Your task to perform on an android device: Find the nearest electronics store that's open tomorrow Image 0: 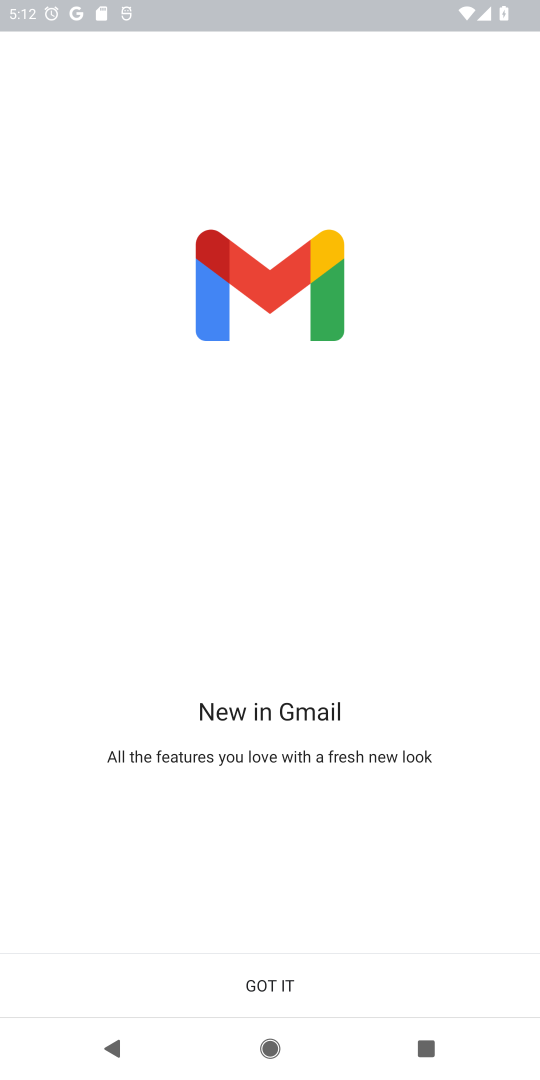
Step 0: click (265, 984)
Your task to perform on an android device: Find the nearest electronics store that's open tomorrow Image 1: 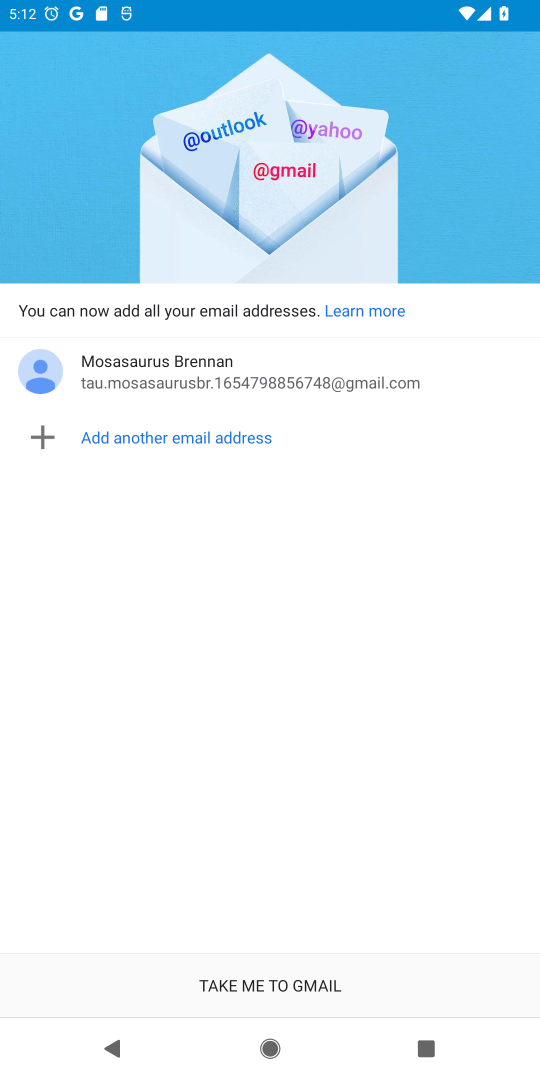
Step 1: click (248, 994)
Your task to perform on an android device: Find the nearest electronics store that's open tomorrow Image 2: 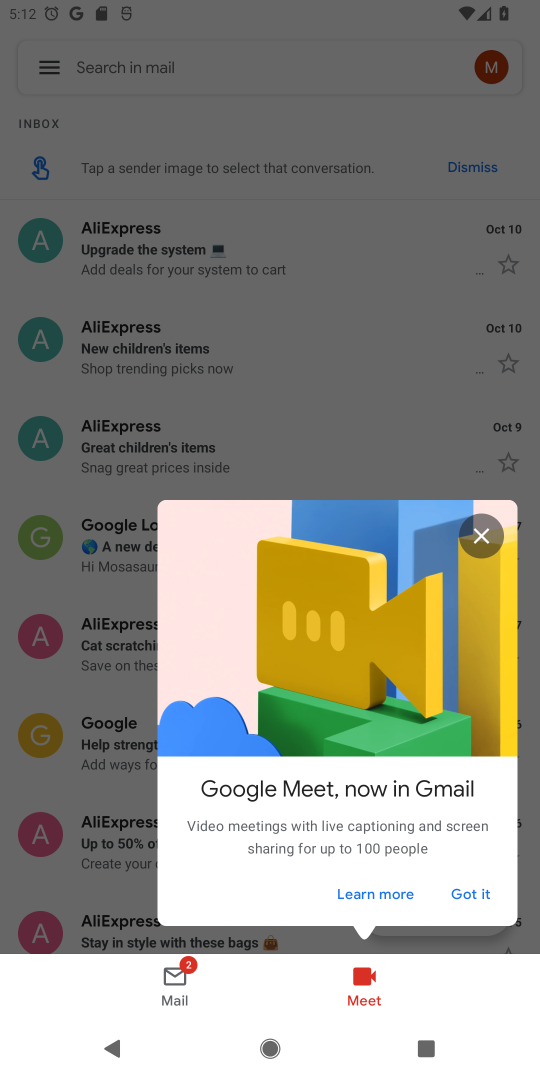
Step 2: press home button
Your task to perform on an android device: Find the nearest electronics store that's open tomorrow Image 3: 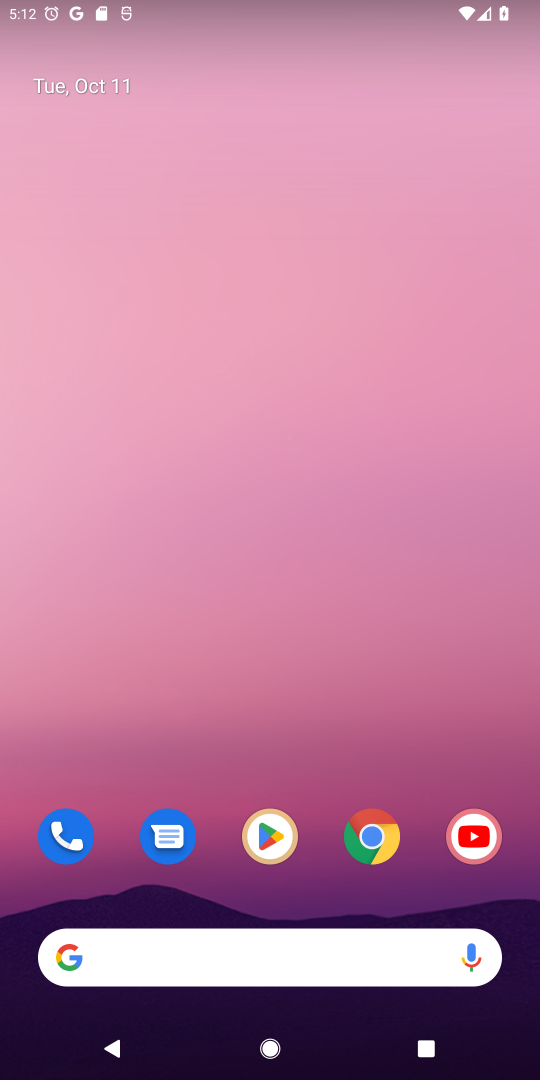
Step 3: click (310, 971)
Your task to perform on an android device: Find the nearest electronics store that's open tomorrow Image 4: 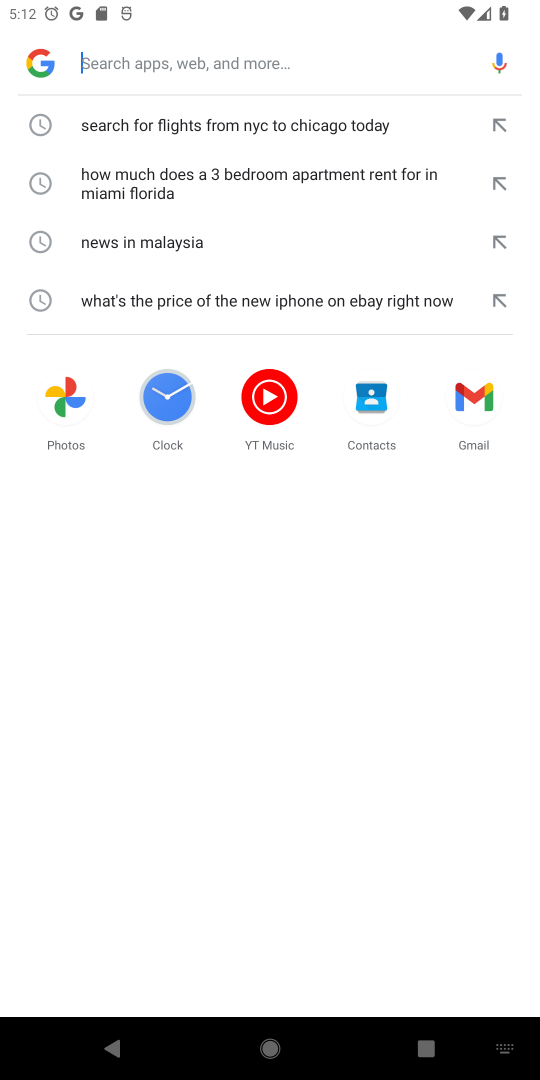
Step 4: type "Find the nearest electronics store that's open tomorrow"
Your task to perform on an android device: Find the nearest electronics store that's open tomorrow Image 5: 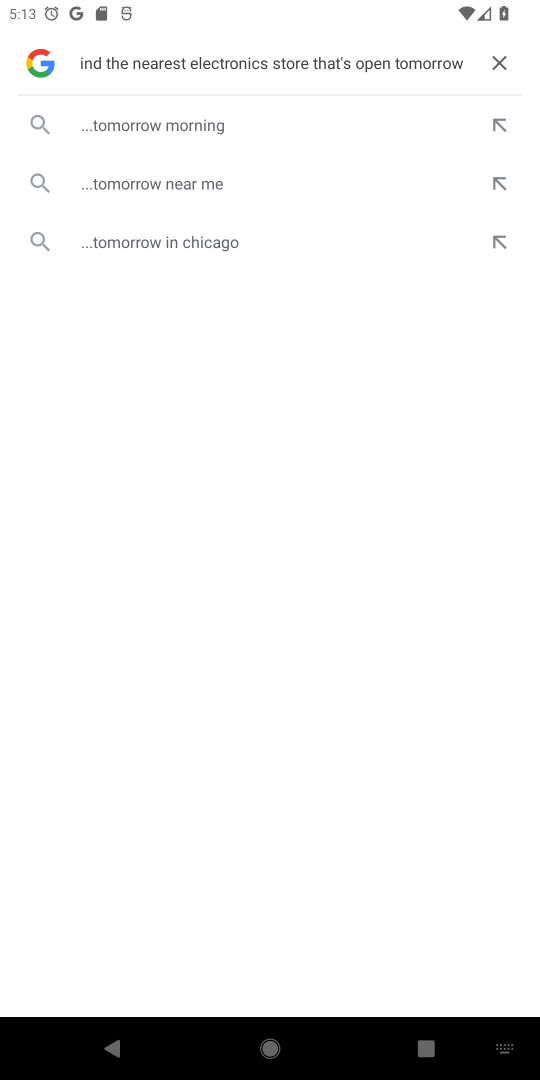
Step 5: click (347, 132)
Your task to perform on an android device: Find the nearest electronics store that's open tomorrow Image 6: 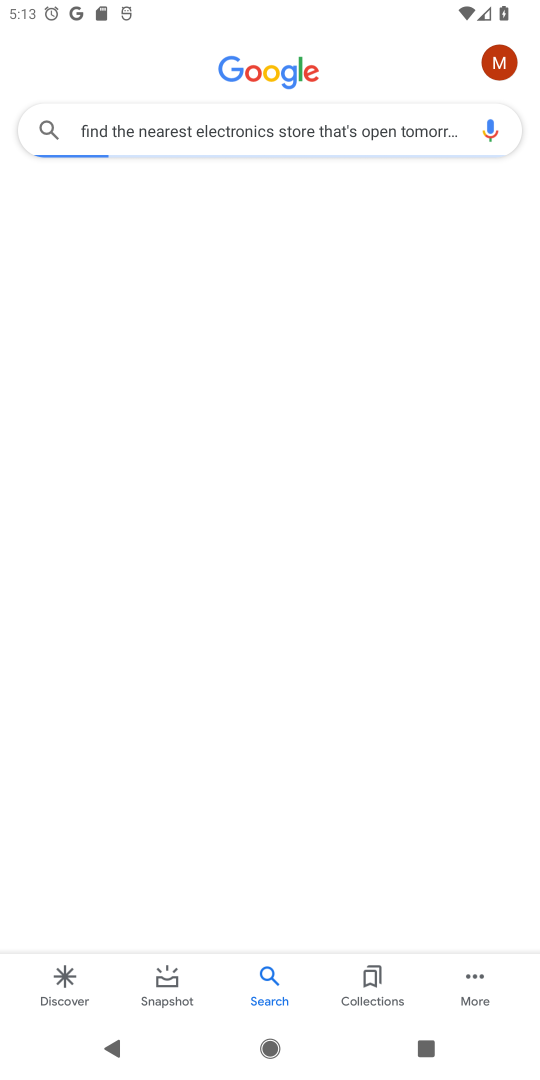
Step 6: task complete